Your task to perform on an android device: Search for "usb-b" on newegg.com, select the first entry, and add it to the cart. Image 0: 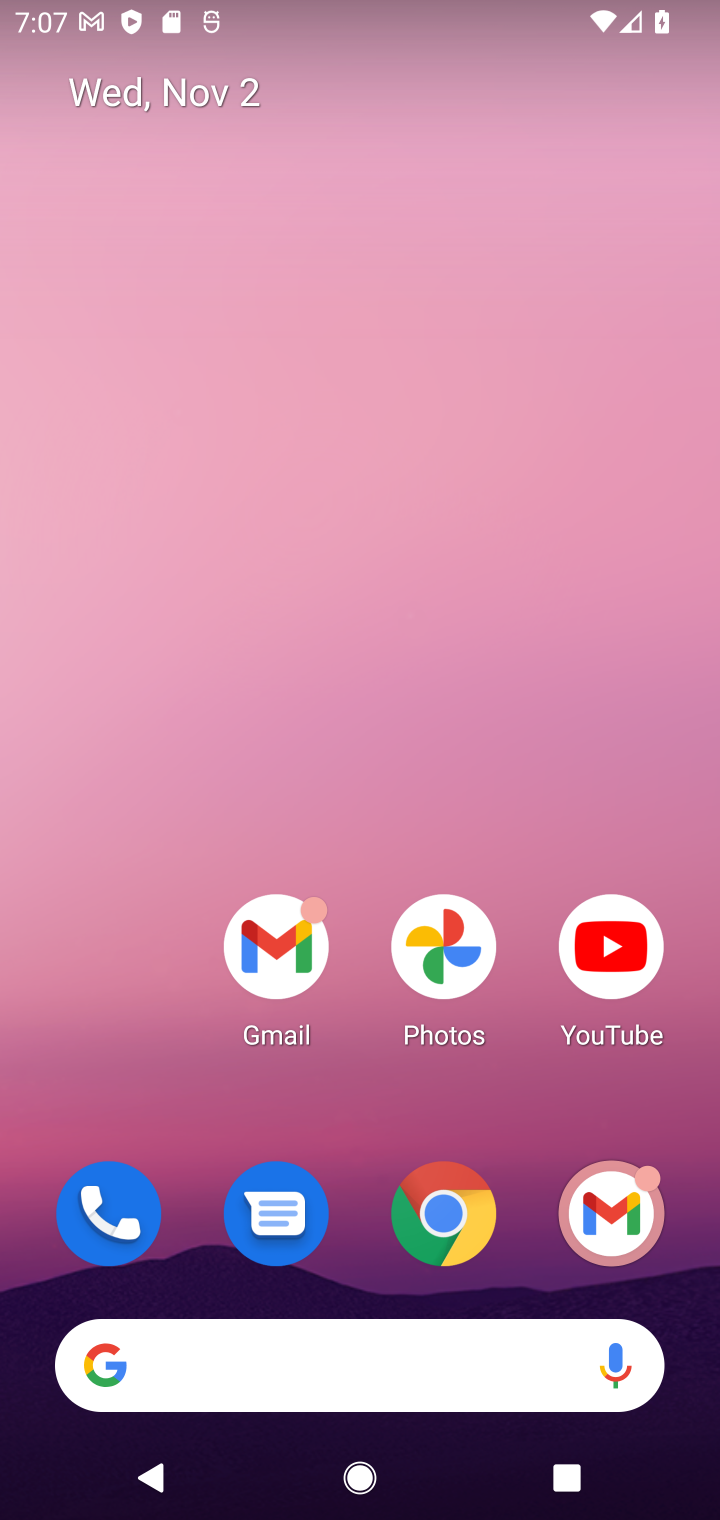
Step 0: click (444, 1209)
Your task to perform on an android device: Search for "usb-b" on newegg.com, select the first entry, and add it to the cart. Image 1: 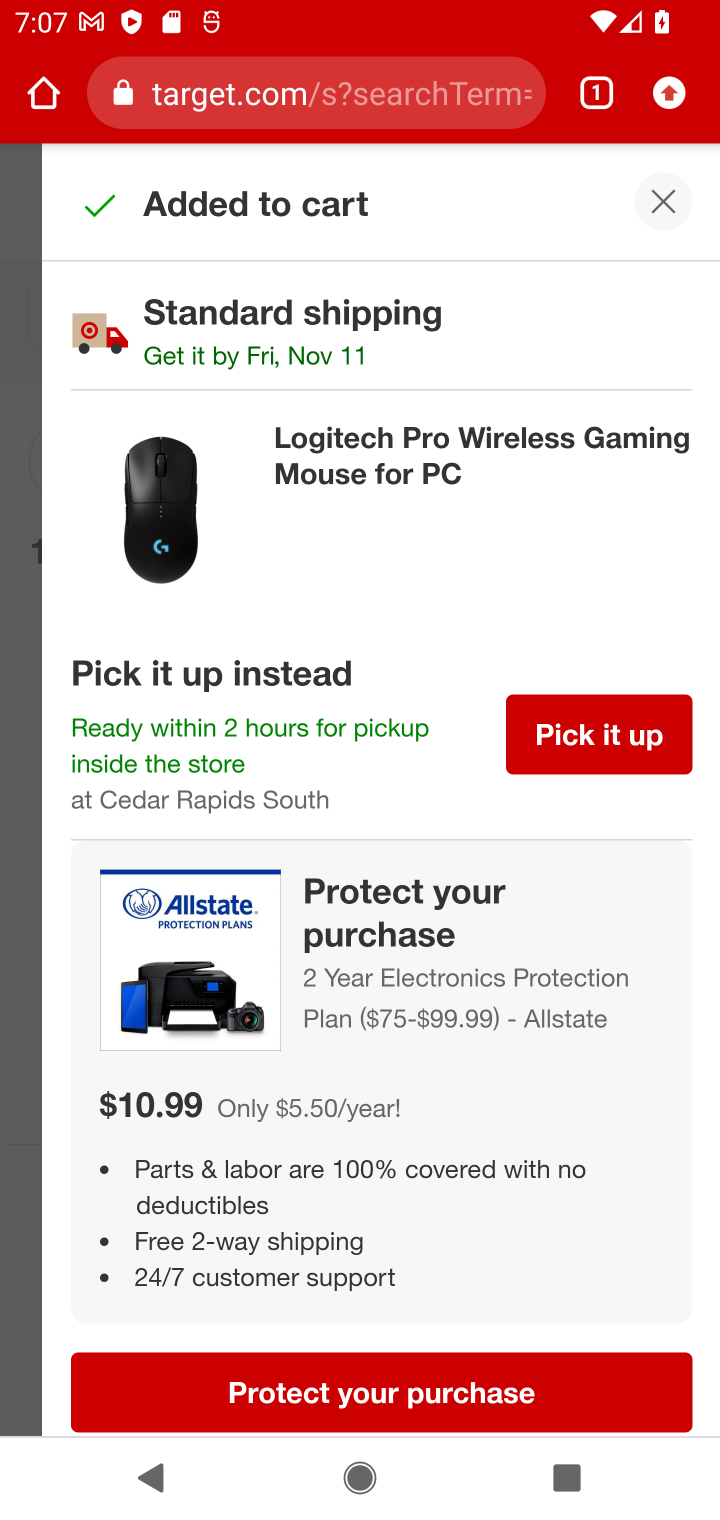
Step 1: click (378, 71)
Your task to perform on an android device: Search for "usb-b" on newegg.com, select the first entry, and add it to the cart. Image 2: 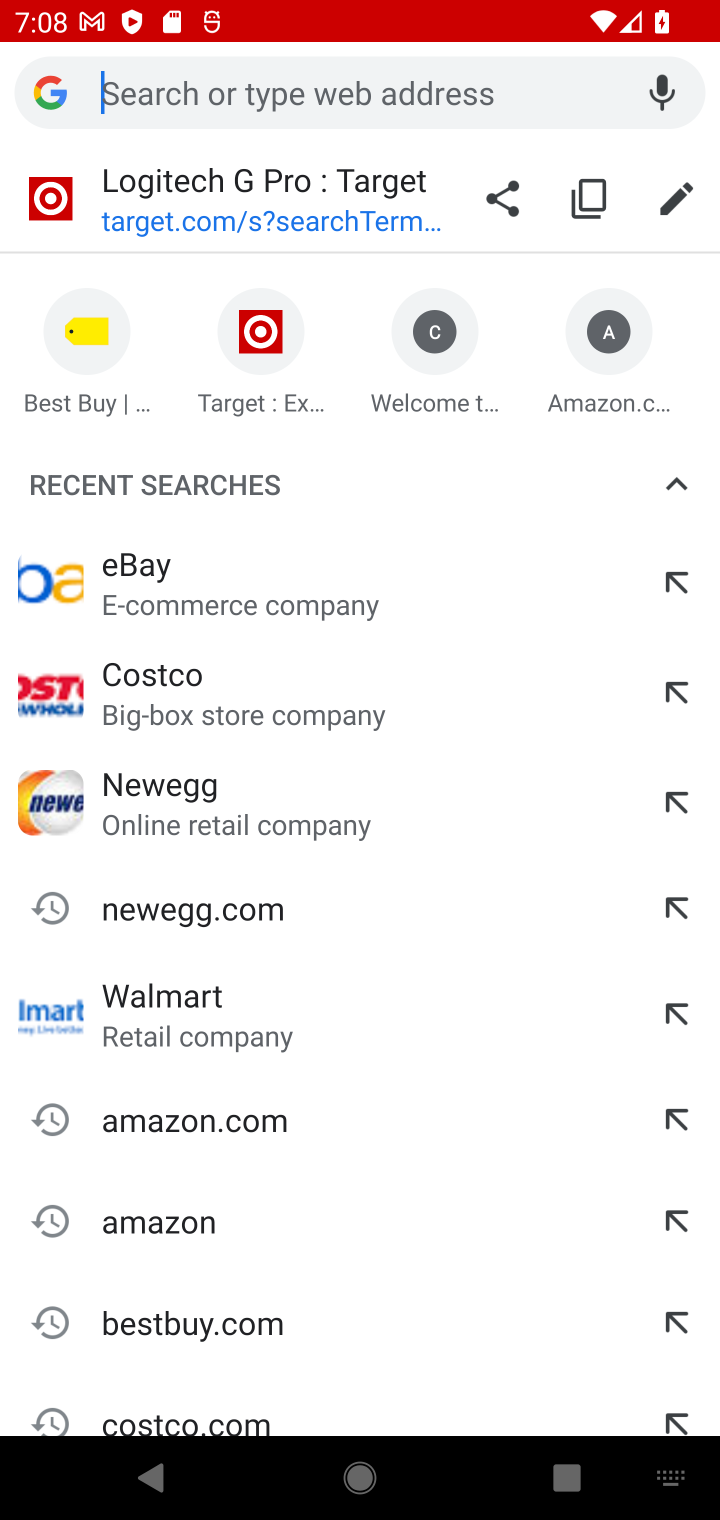
Step 2: type "newegg.com"
Your task to perform on an android device: Search for "usb-b" on newegg.com, select the first entry, and add it to the cart. Image 3: 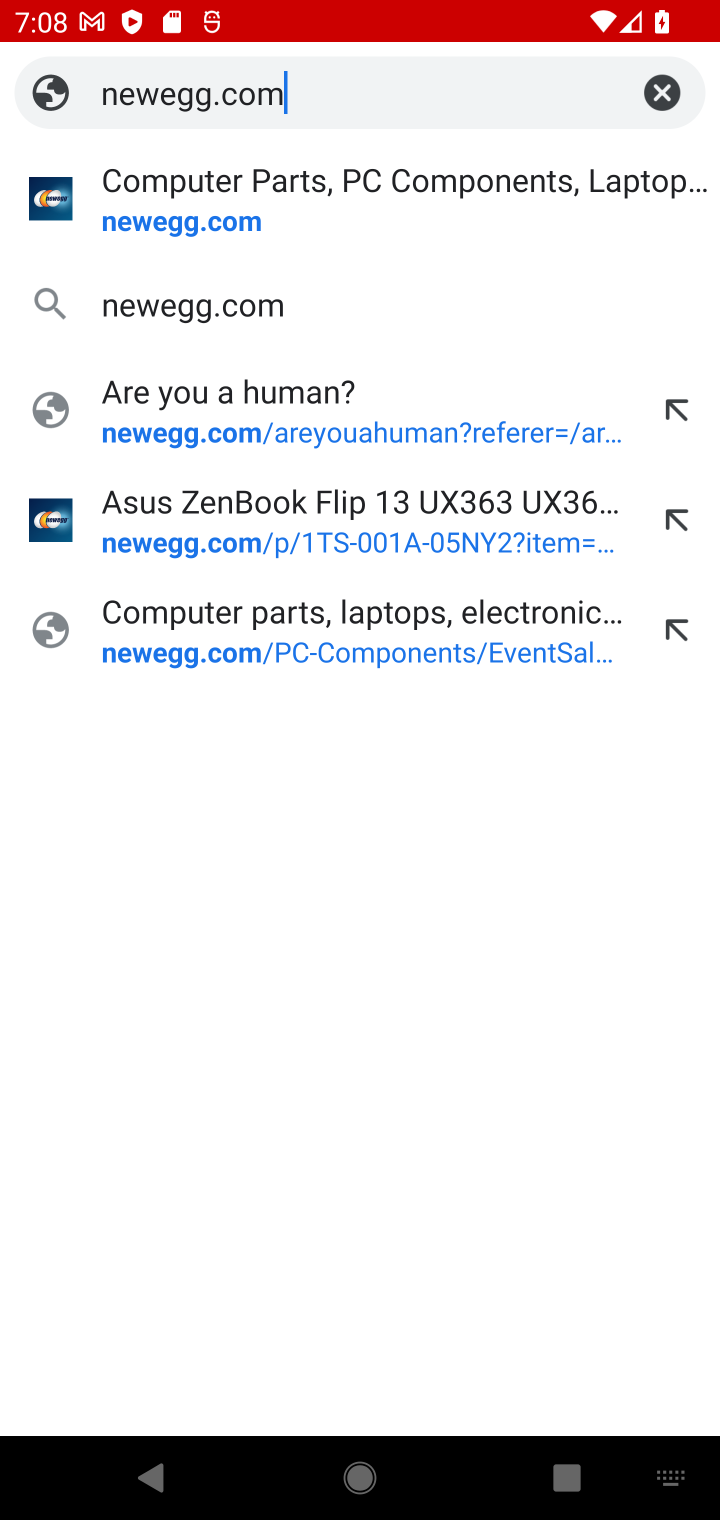
Step 3: click (144, 178)
Your task to perform on an android device: Search for "usb-b" on newegg.com, select the first entry, and add it to the cart. Image 4: 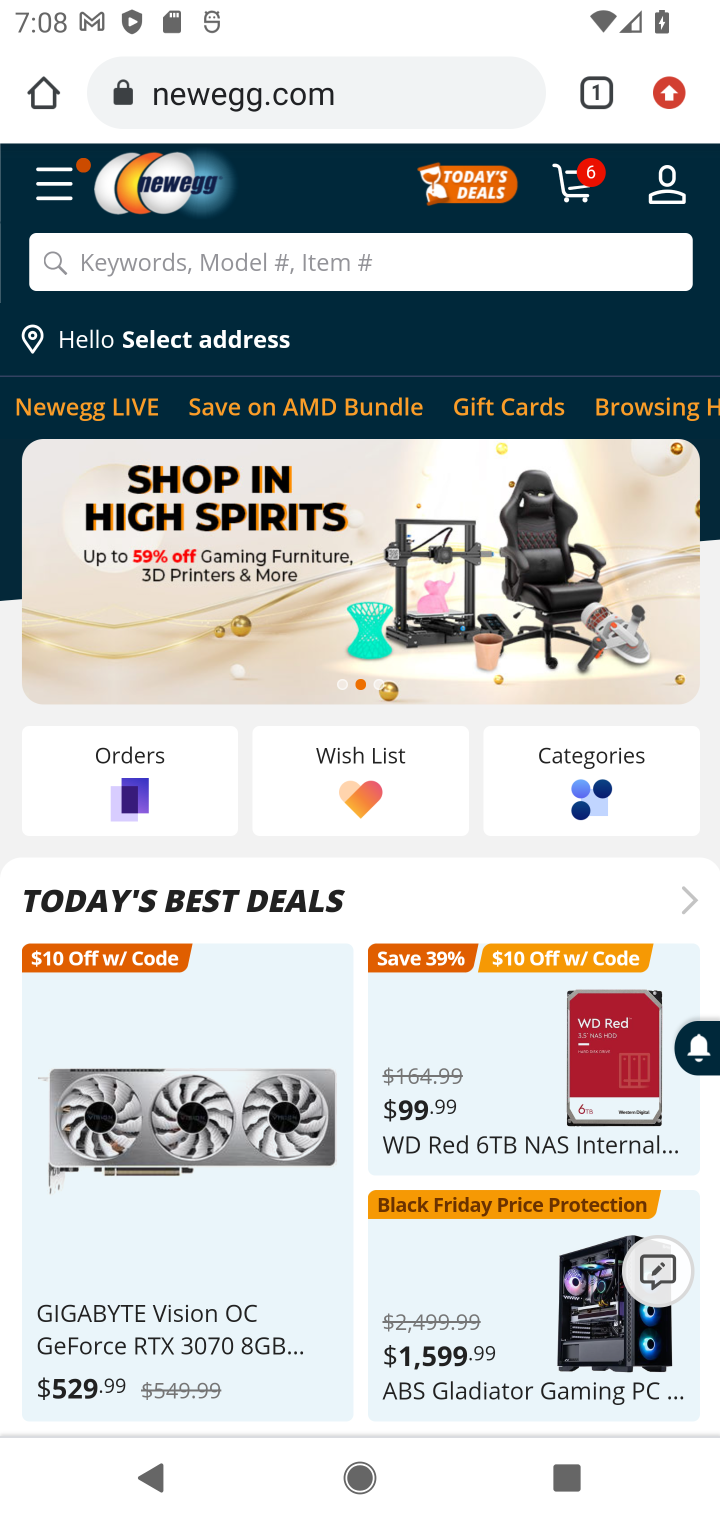
Step 4: click (191, 264)
Your task to perform on an android device: Search for "usb-b" on newegg.com, select the first entry, and add it to the cart. Image 5: 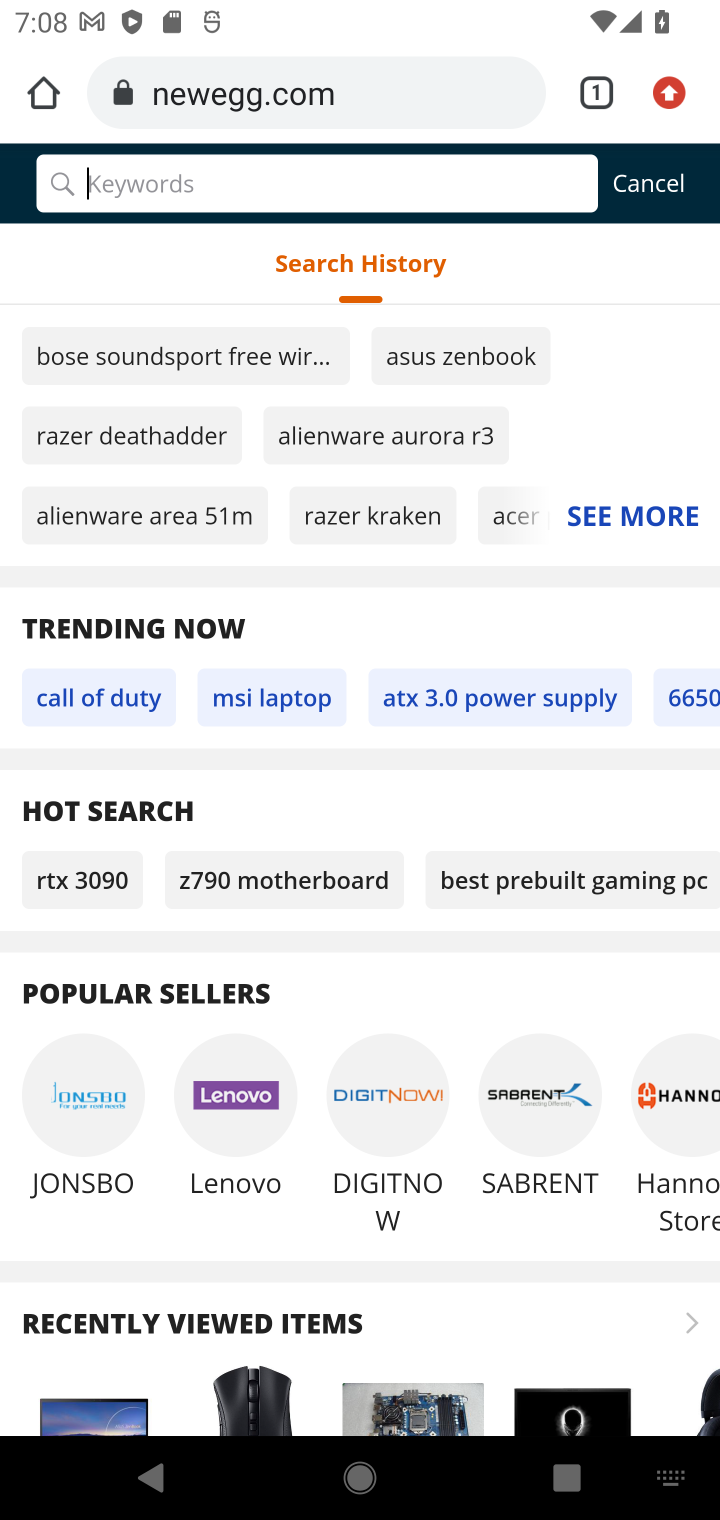
Step 5: type "usb-b"
Your task to perform on an android device: Search for "usb-b" on newegg.com, select the first entry, and add it to the cart. Image 6: 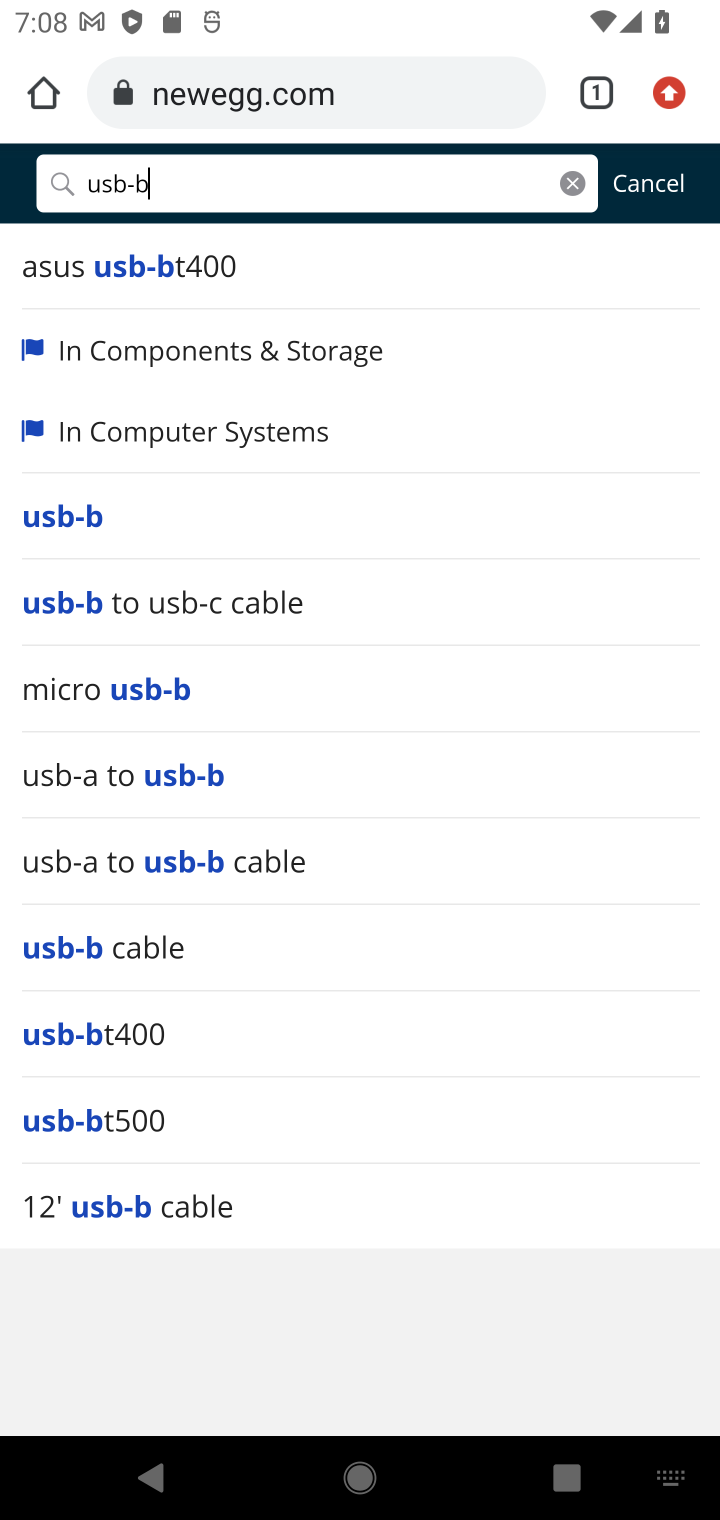
Step 6: click (78, 505)
Your task to perform on an android device: Search for "usb-b" on newegg.com, select the first entry, and add it to the cart. Image 7: 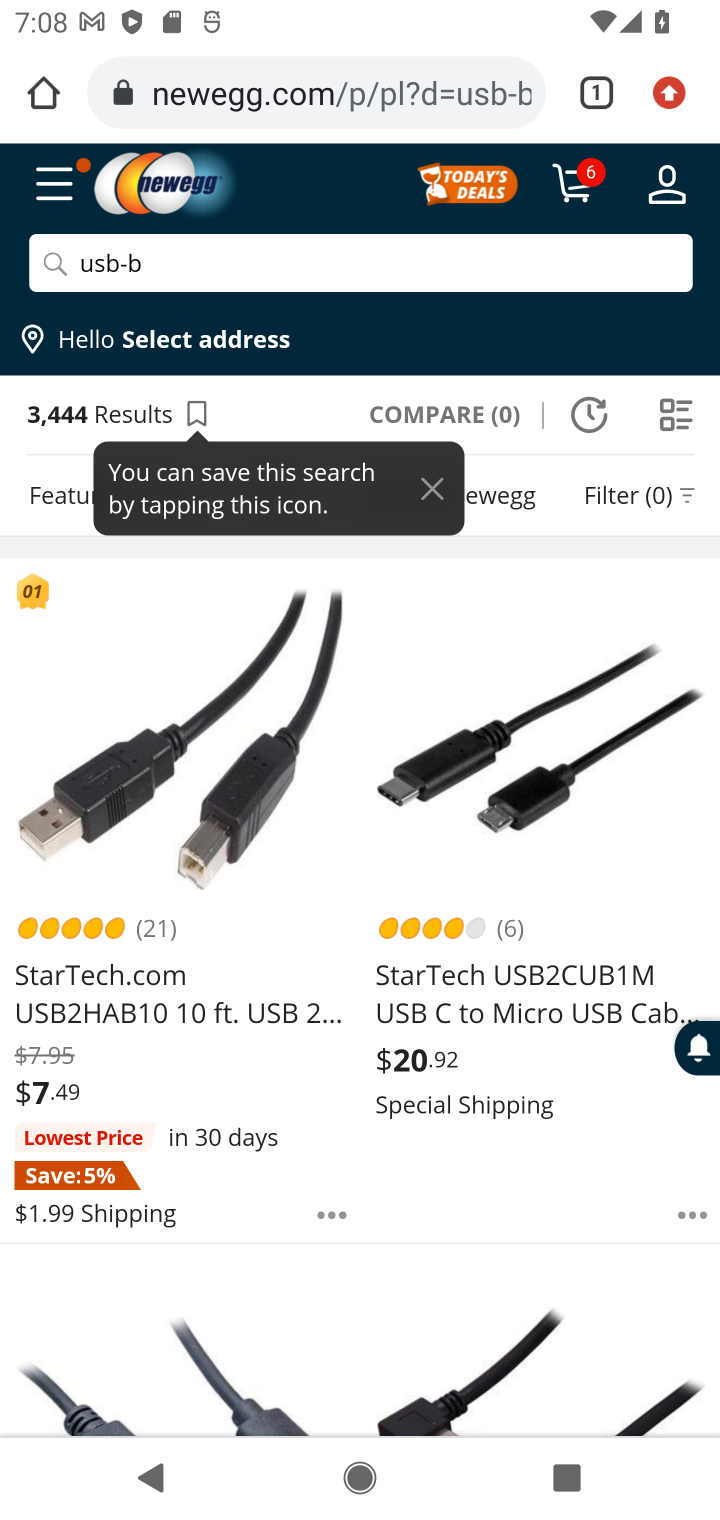
Step 7: click (63, 521)
Your task to perform on an android device: Search for "usb-b" on newegg.com, select the first entry, and add it to the cart. Image 8: 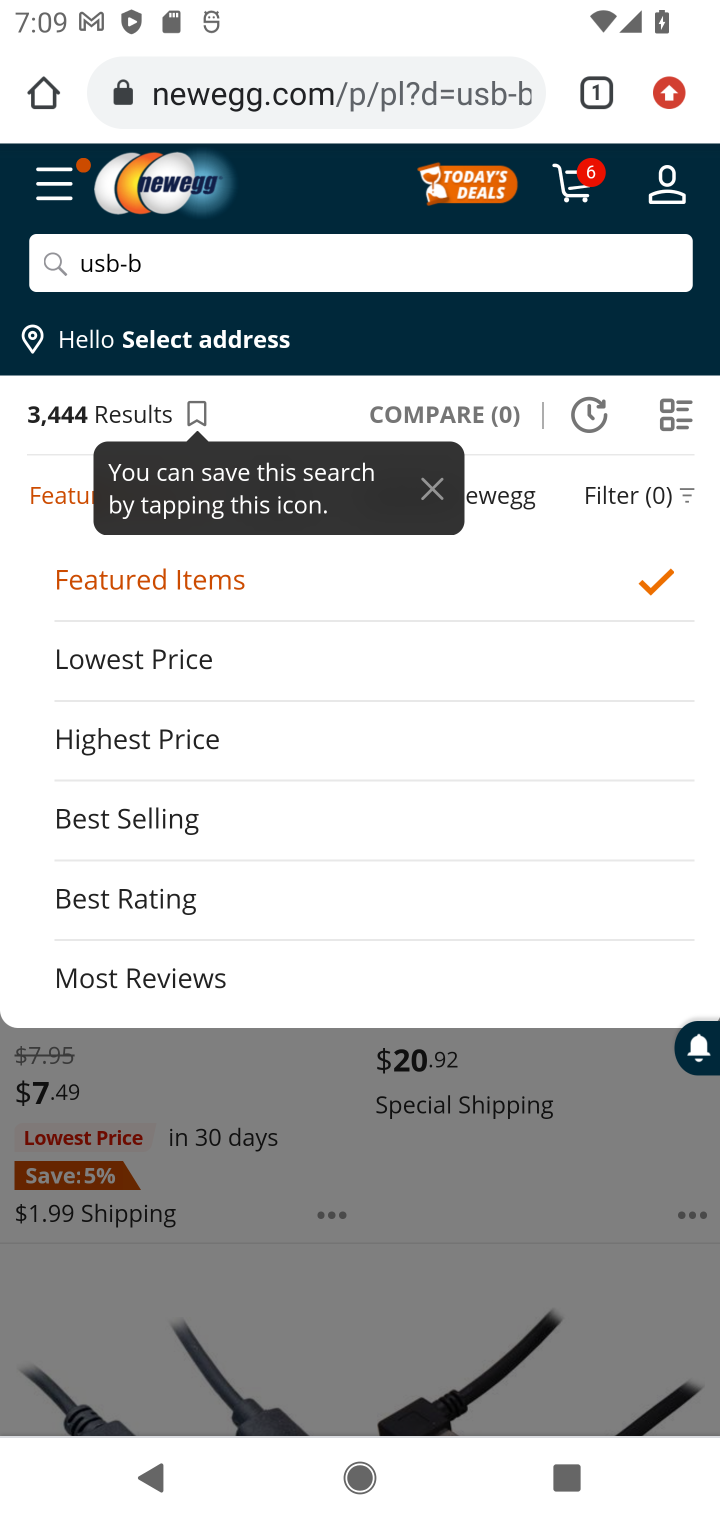
Step 8: click (455, 1139)
Your task to perform on an android device: Search for "usb-b" on newegg.com, select the first entry, and add it to the cart. Image 9: 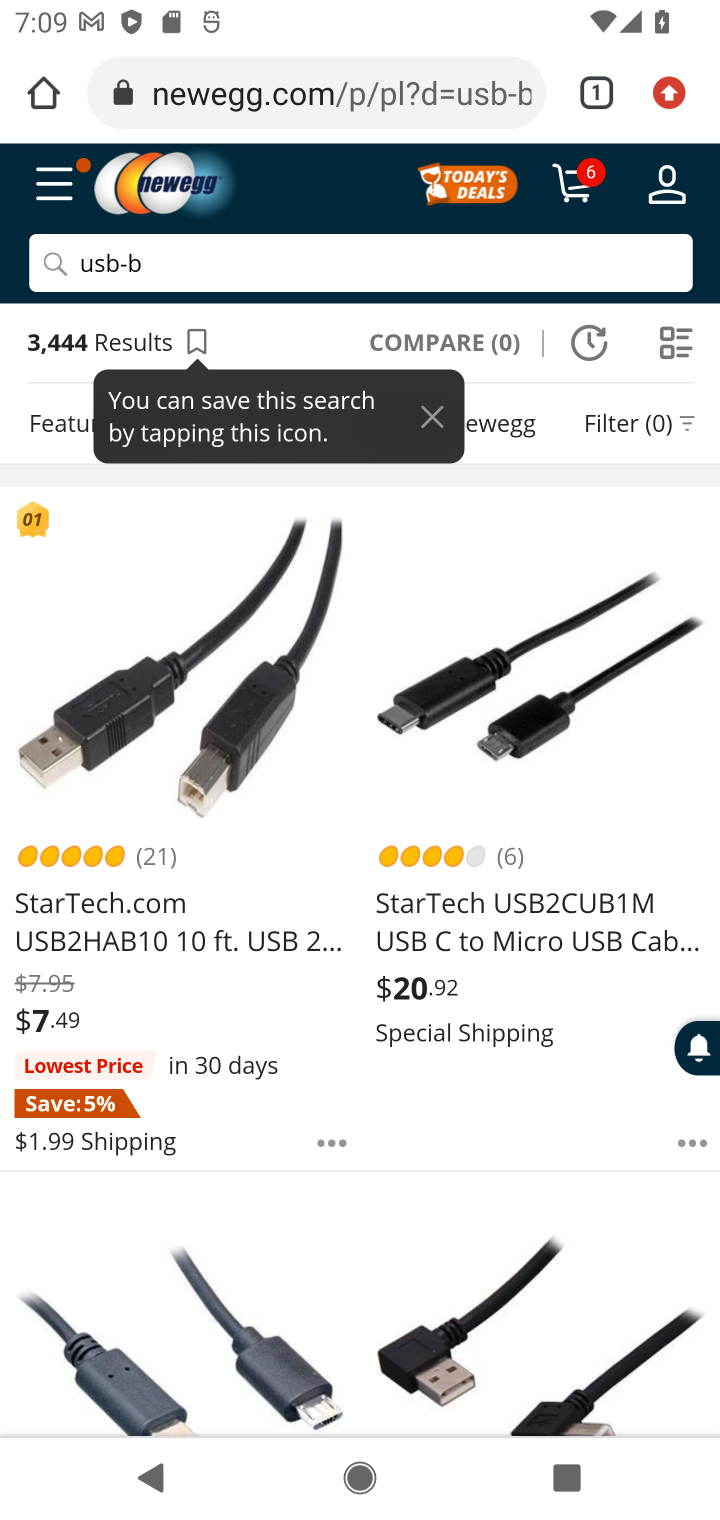
Step 9: drag from (365, 1082) to (314, 576)
Your task to perform on an android device: Search for "usb-b" on newegg.com, select the first entry, and add it to the cart. Image 10: 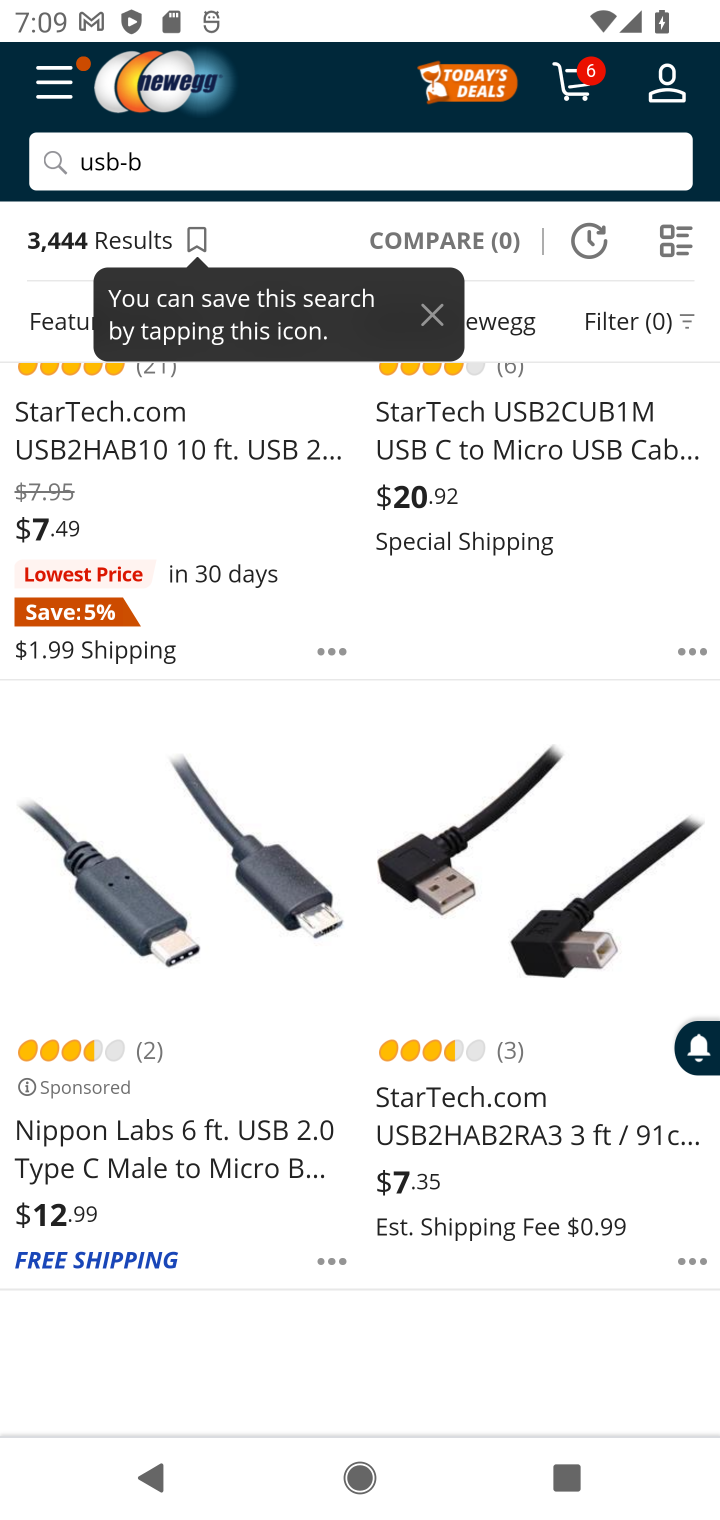
Step 10: drag from (317, 1337) to (288, 709)
Your task to perform on an android device: Search for "usb-b" on newegg.com, select the first entry, and add it to the cart. Image 11: 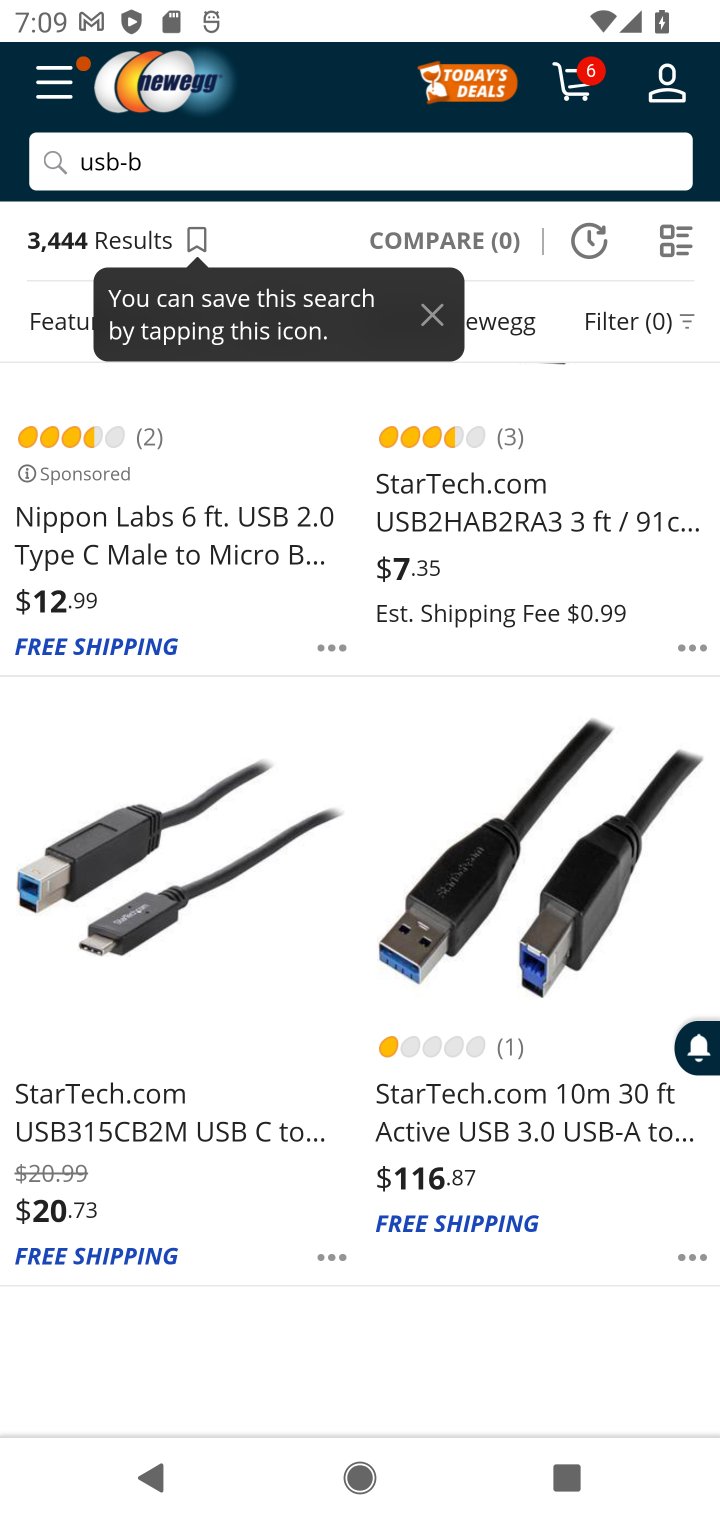
Step 11: drag from (335, 741) to (294, 1500)
Your task to perform on an android device: Search for "usb-b" on newegg.com, select the first entry, and add it to the cart. Image 12: 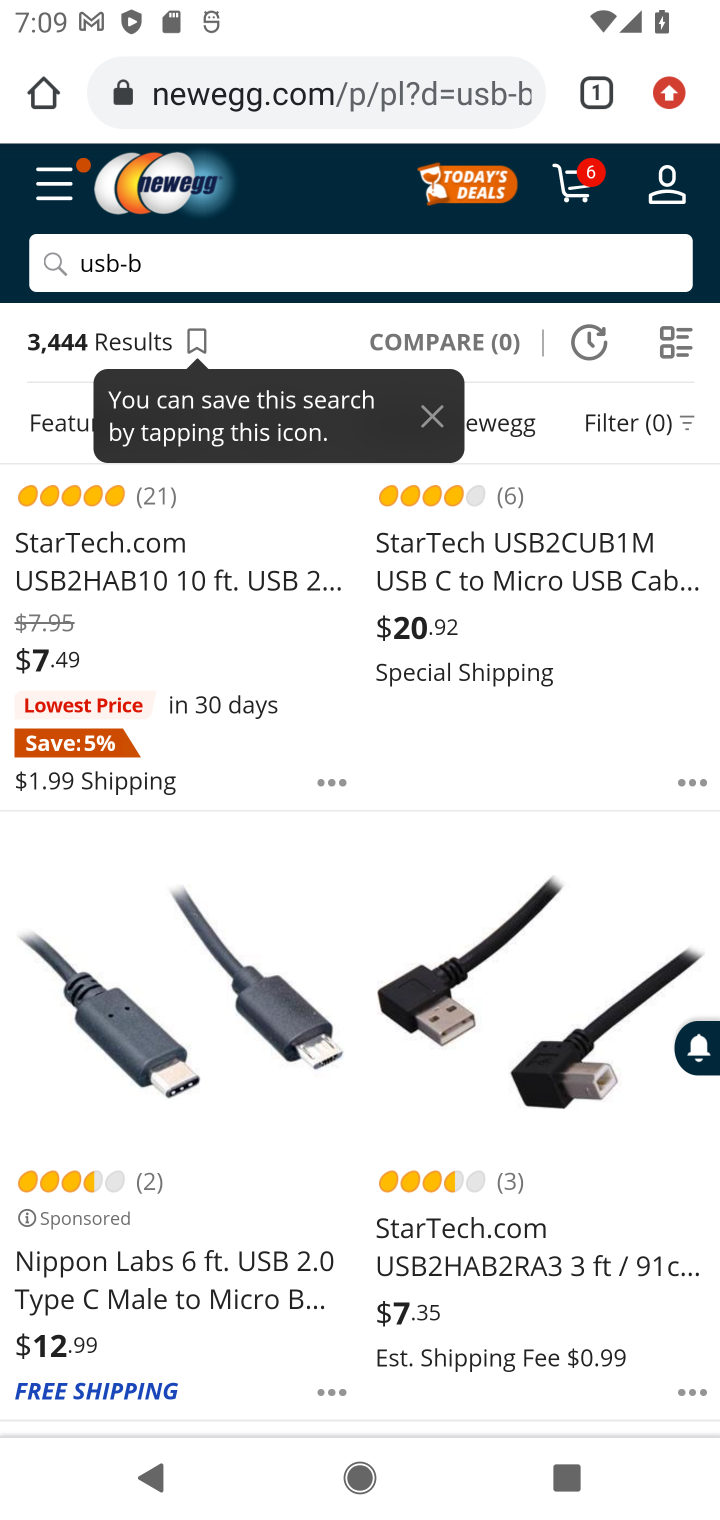
Step 12: drag from (327, 896) to (300, 1104)
Your task to perform on an android device: Search for "usb-b" on newegg.com, select the first entry, and add it to the cart. Image 13: 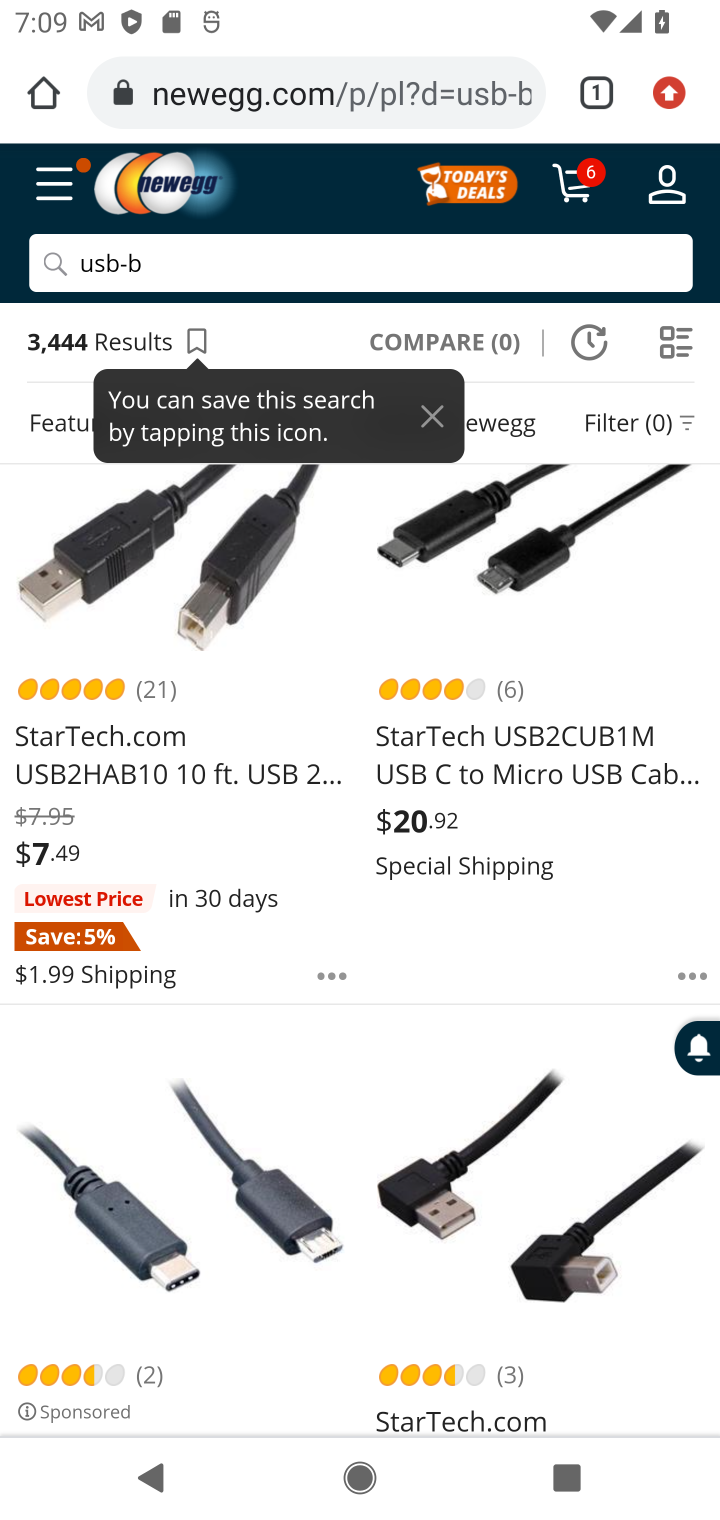
Step 13: drag from (370, 713) to (353, 1210)
Your task to perform on an android device: Search for "usb-b" on newegg.com, select the first entry, and add it to the cart. Image 14: 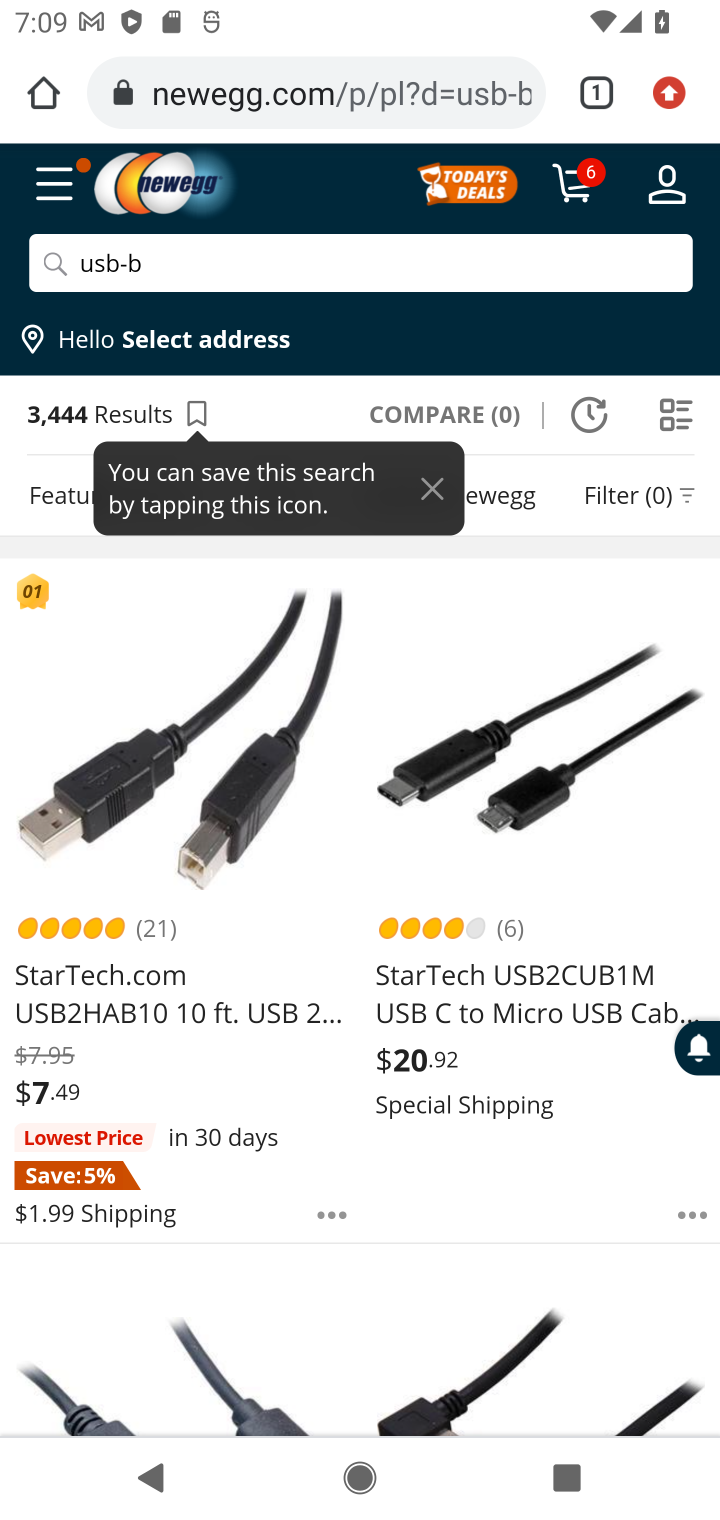
Step 14: drag from (324, 712) to (310, 1077)
Your task to perform on an android device: Search for "usb-b" on newegg.com, select the first entry, and add it to the cart. Image 15: 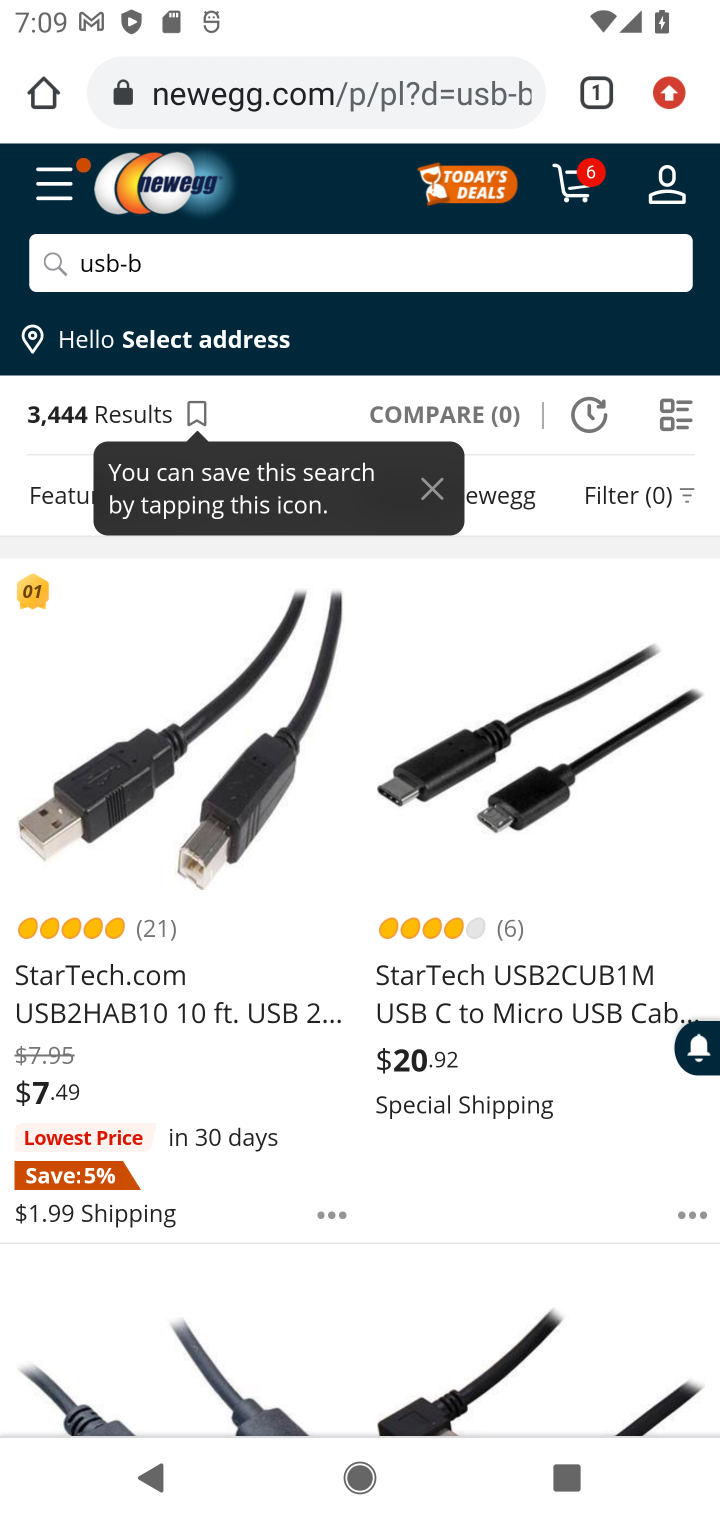
Step 15: click (509, 998)
Your task to perform on an android device: Search for "usb-b" on newegg.com, select the first entry, and add it to the cart. Image 16: 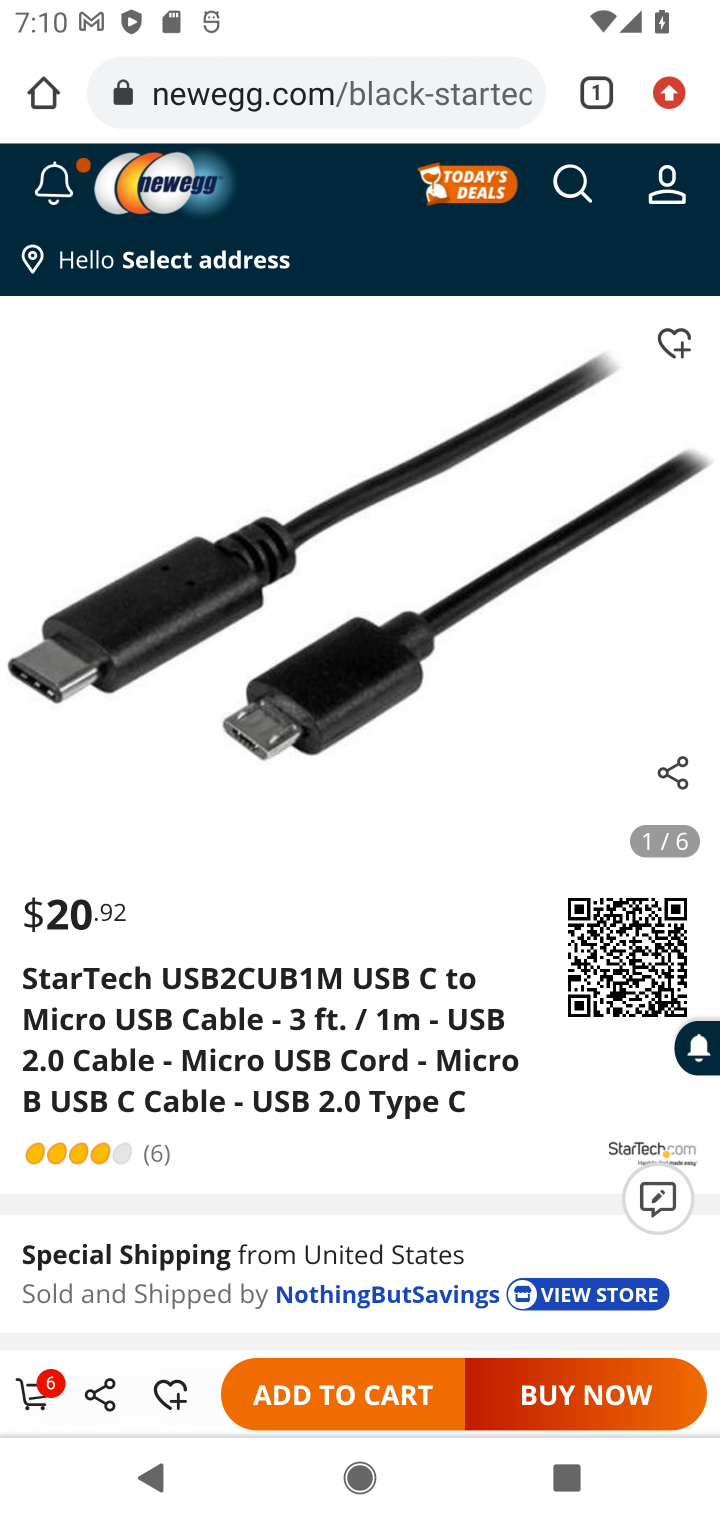
Step 16: click (341, 1390)
Your task to perform on an android device: Search for "usb-b" on newegg.com, select the first entry, and add it to the cart. Image 17: 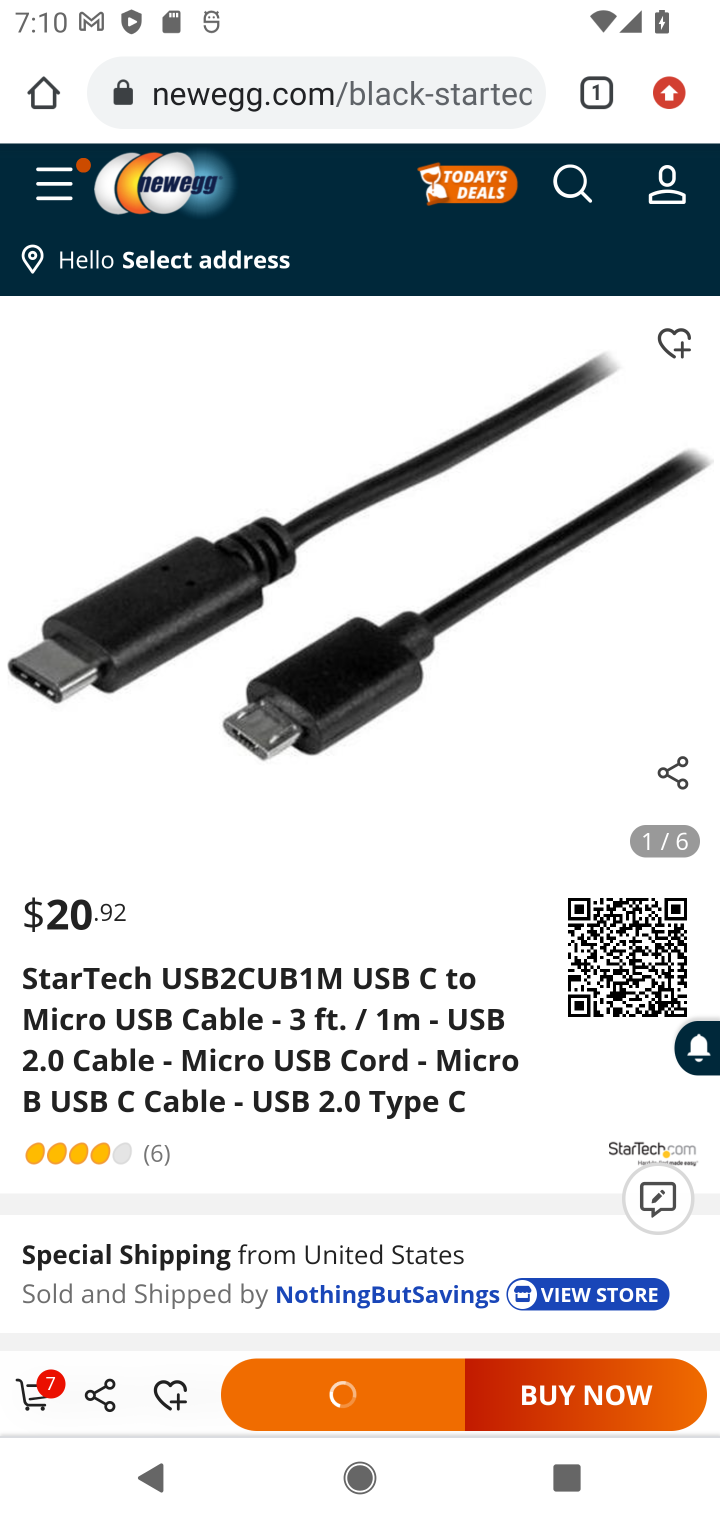
Step 17: click (361, 1389)
Your task to perform on an android device: Search for "usb-b" on newegg.com, select the first entry, and add it to the cart. Image 18: 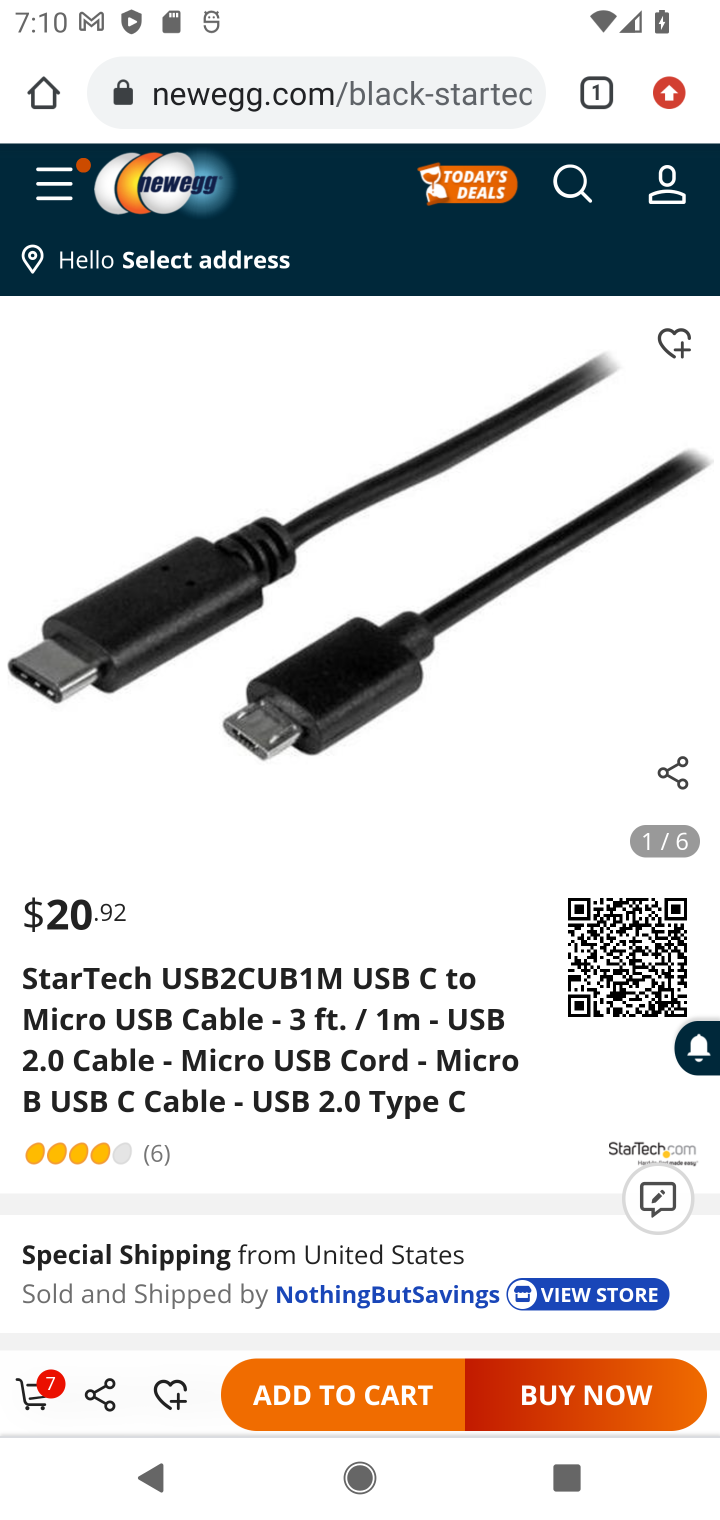
Step 18: task complete